Your task to perform on an android device: install app "The Home Depot" Image 0: 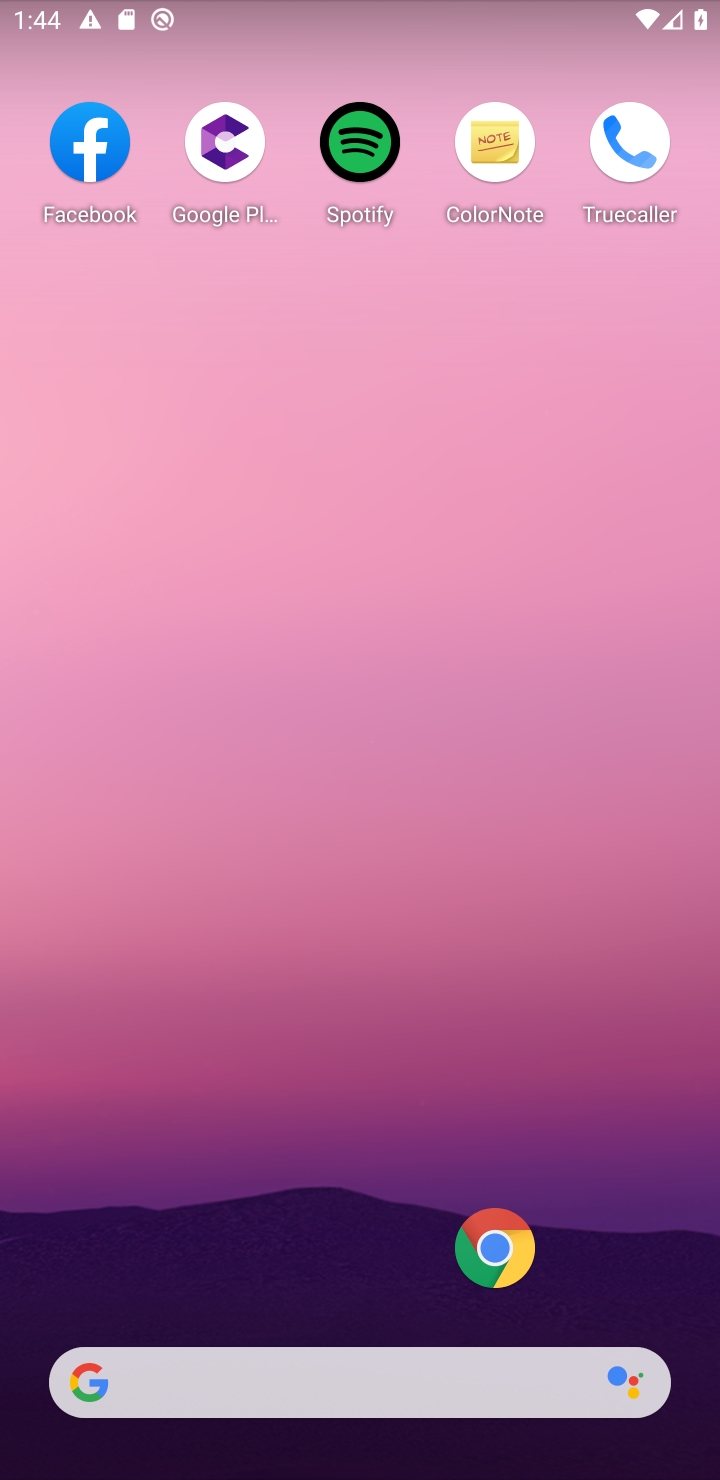
Step 0: drag from (259, 1307) to (320, 766)
Your task to perform on an android device: install app "The Home Depot" Image 1: 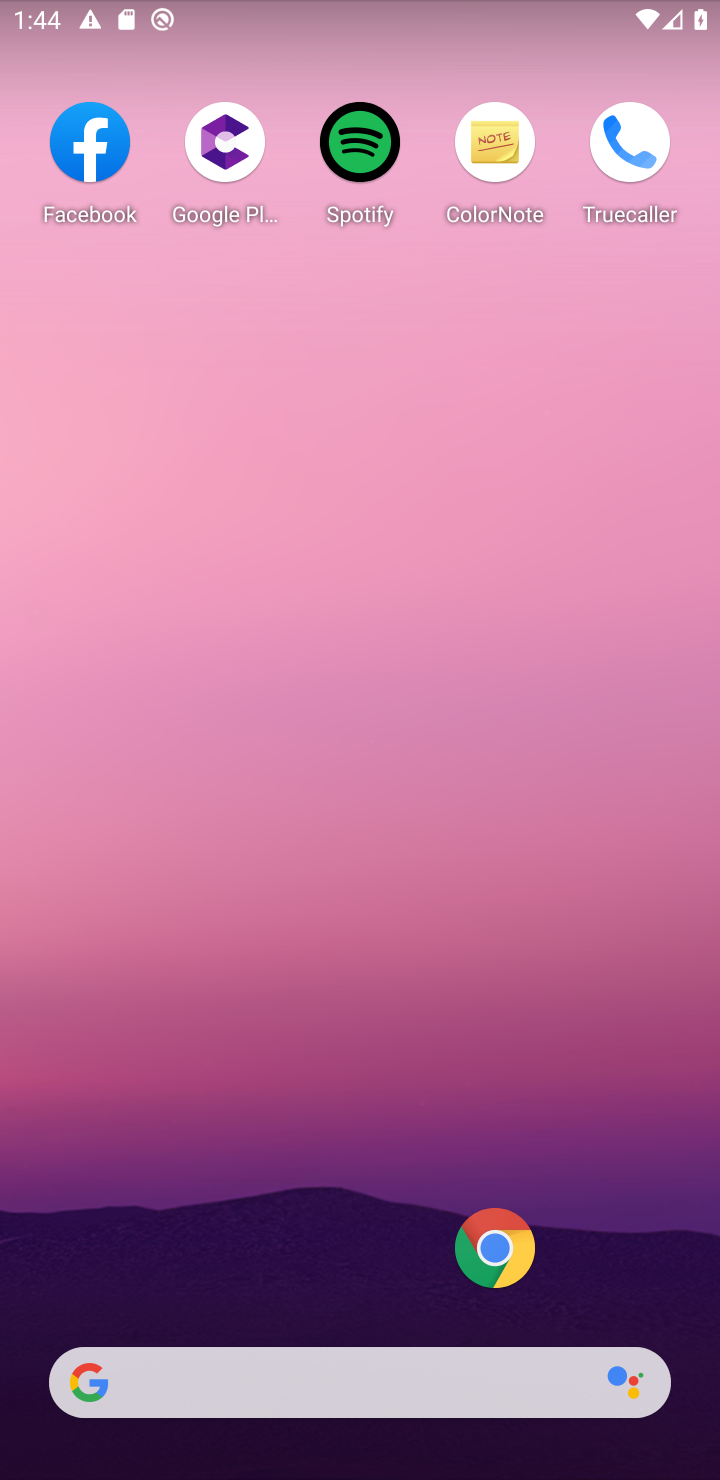
Step 1: drag from (296, 1155) to (337, 417)
Your task to perform on an android device: install app "The Home Depot" Image 2: 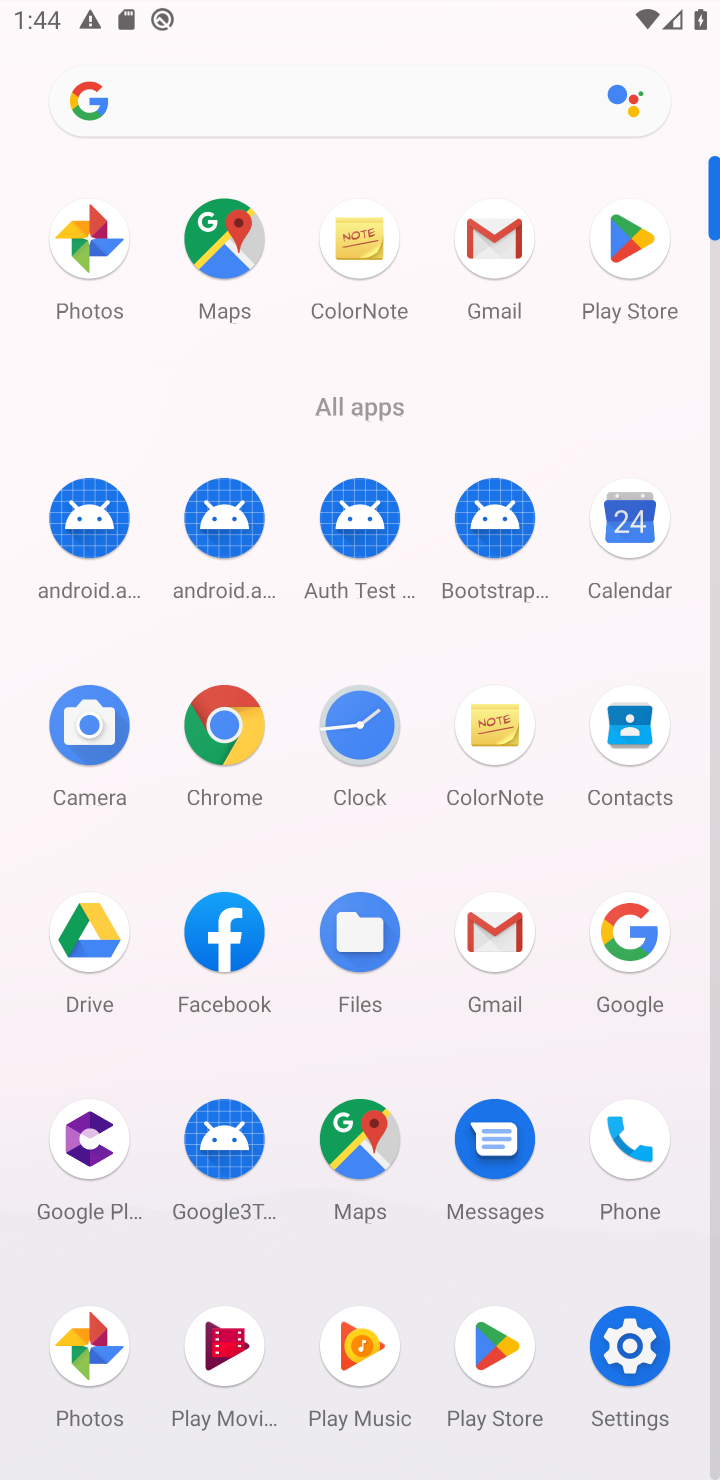
Step 2: click (603, 262)
Your task to perform on an android device: install app "The Home Depot" Image 3: 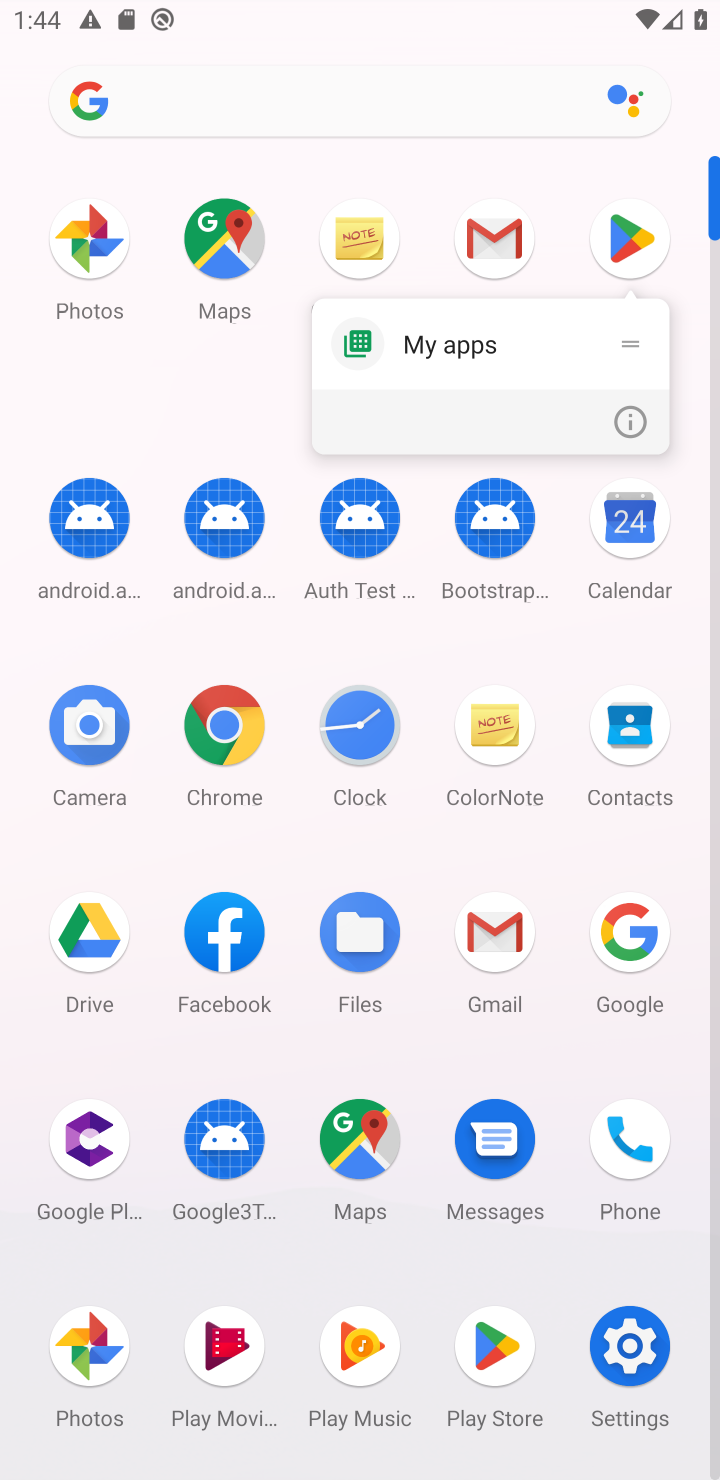
Step 3: click (598, 232)
Your task to perform on an android device: install app "The Home Depot" Image 4: 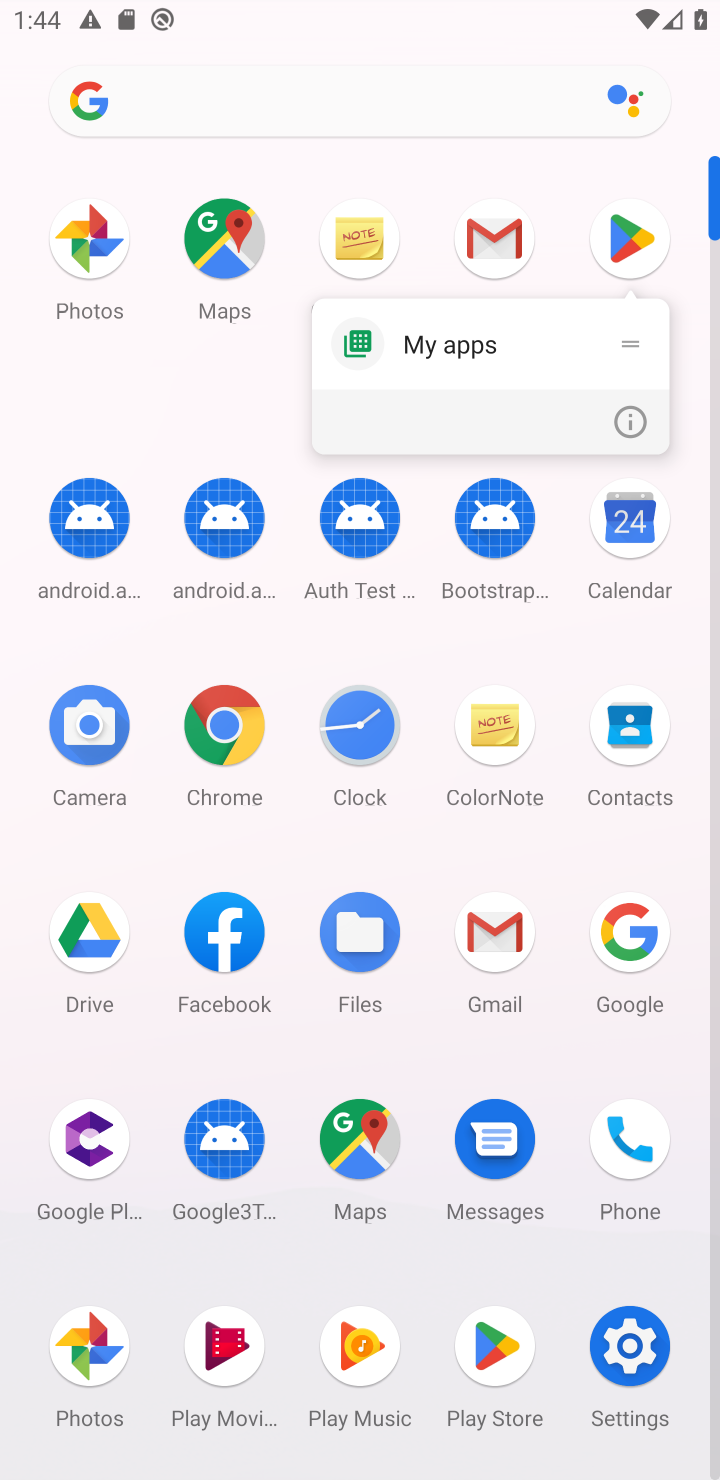
Step 4: click (629, 239)
Your task to perform on an android device: install app "The Home Depot" Image 5: 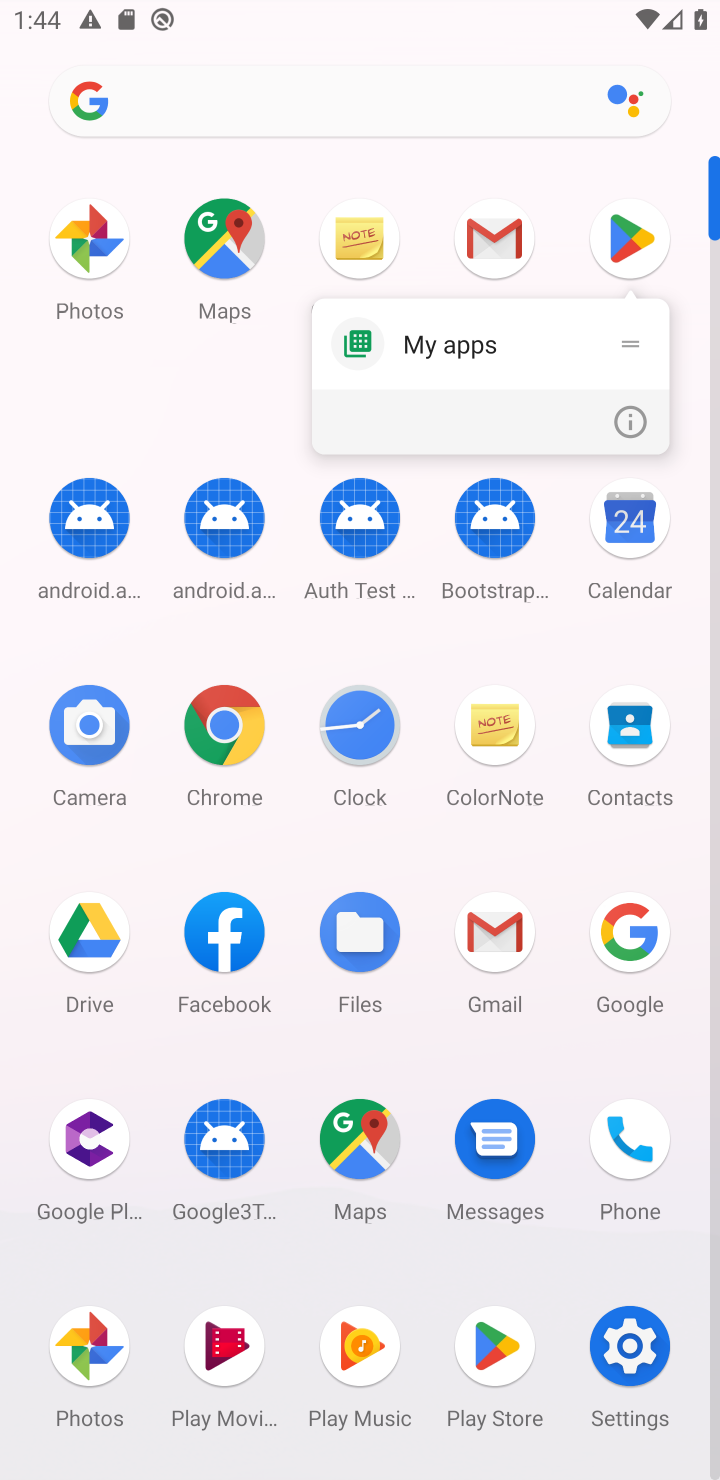
Step 5: click (629, 239)
Your task to perform on an android device: install app "The Home Depot" Image 6: 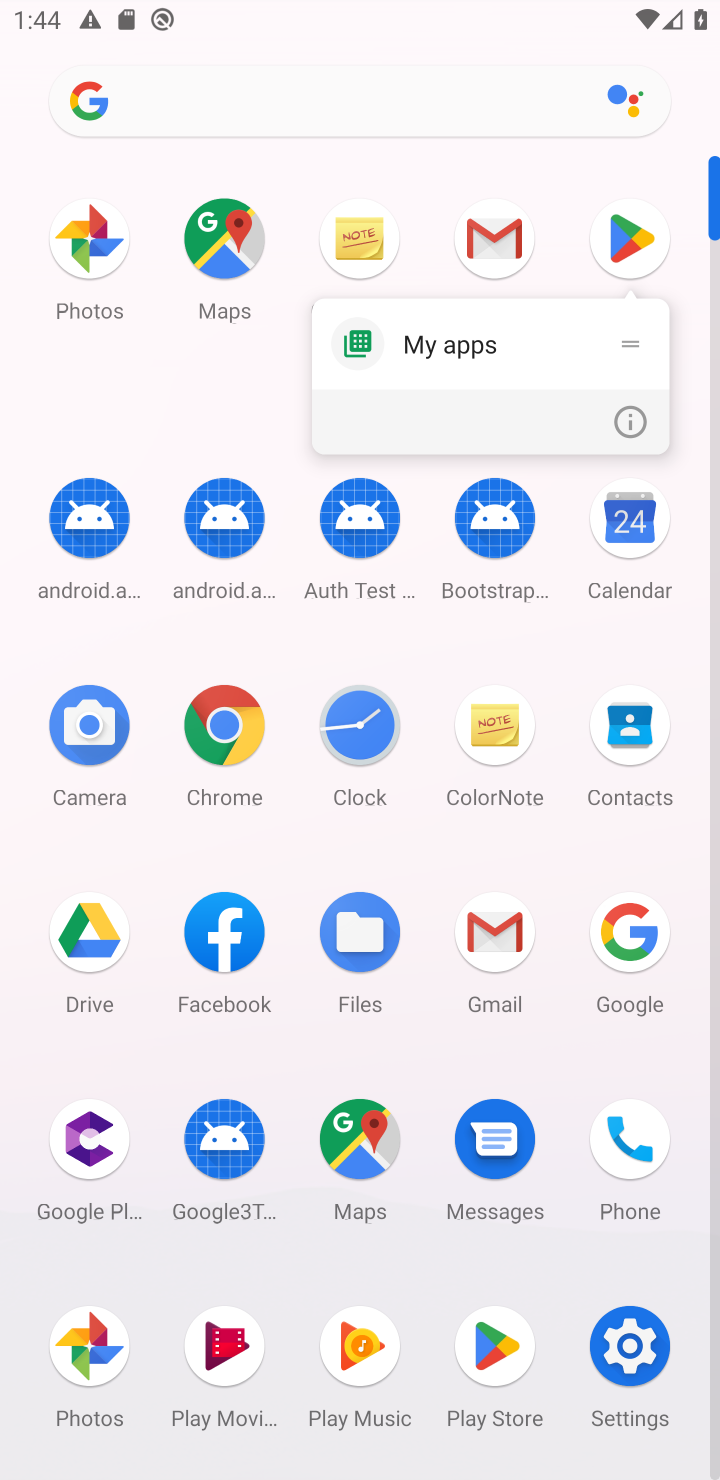
Step 6: click (629, 239)
Your task to perform on an android device: install app "The Home Depot" Image 7: 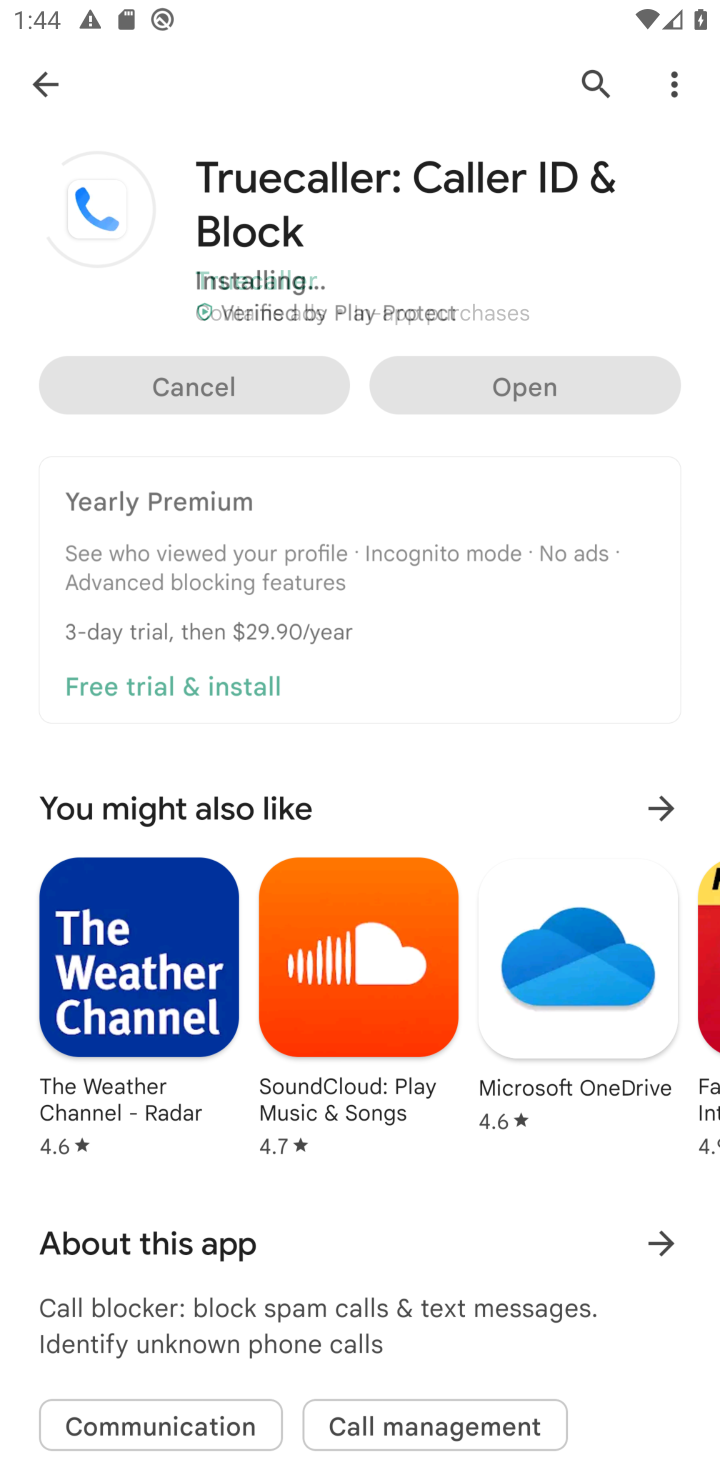
Step 7: click (629, 239)
Your task to perform on an android device: install app "The Home Depot" Image 8: 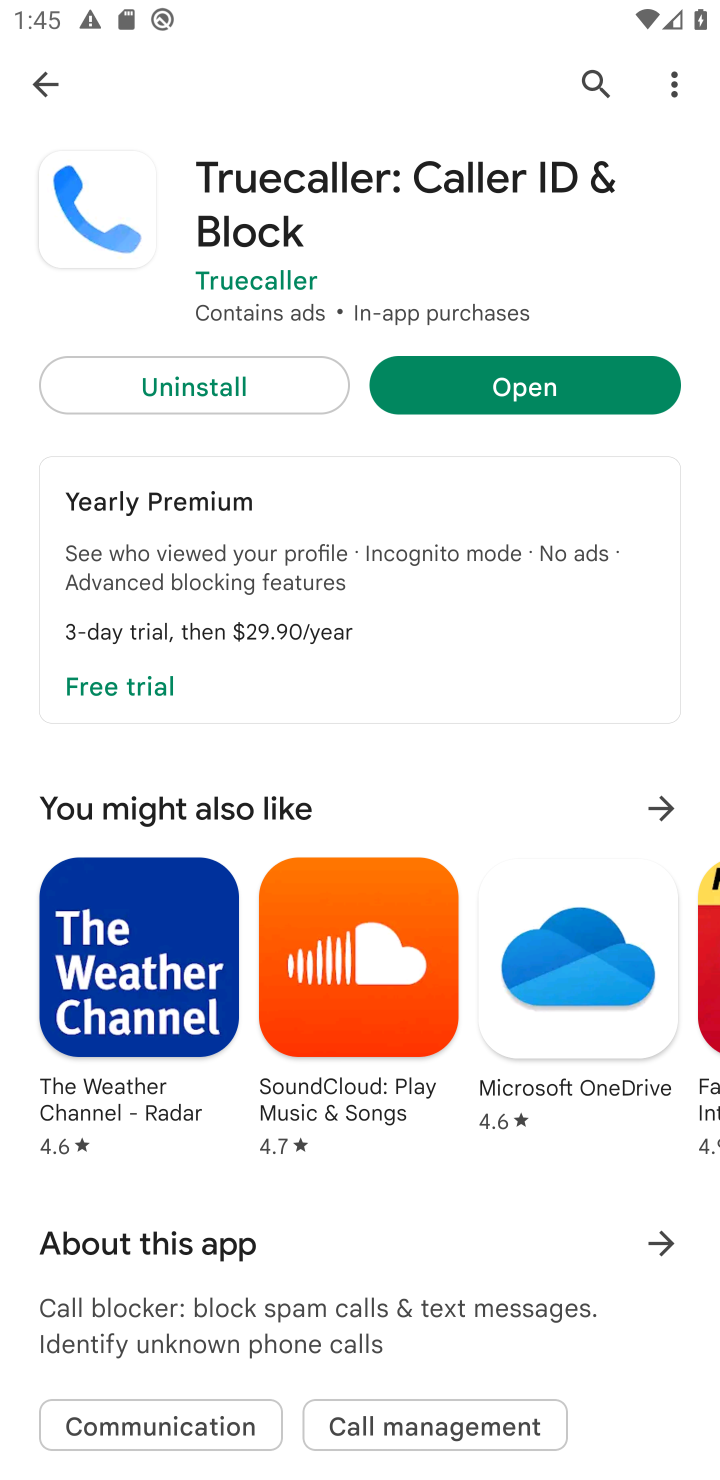
Step 8: click (69, 81)
Your task to perform on an android device: install app "The Home Depot" Image 9: 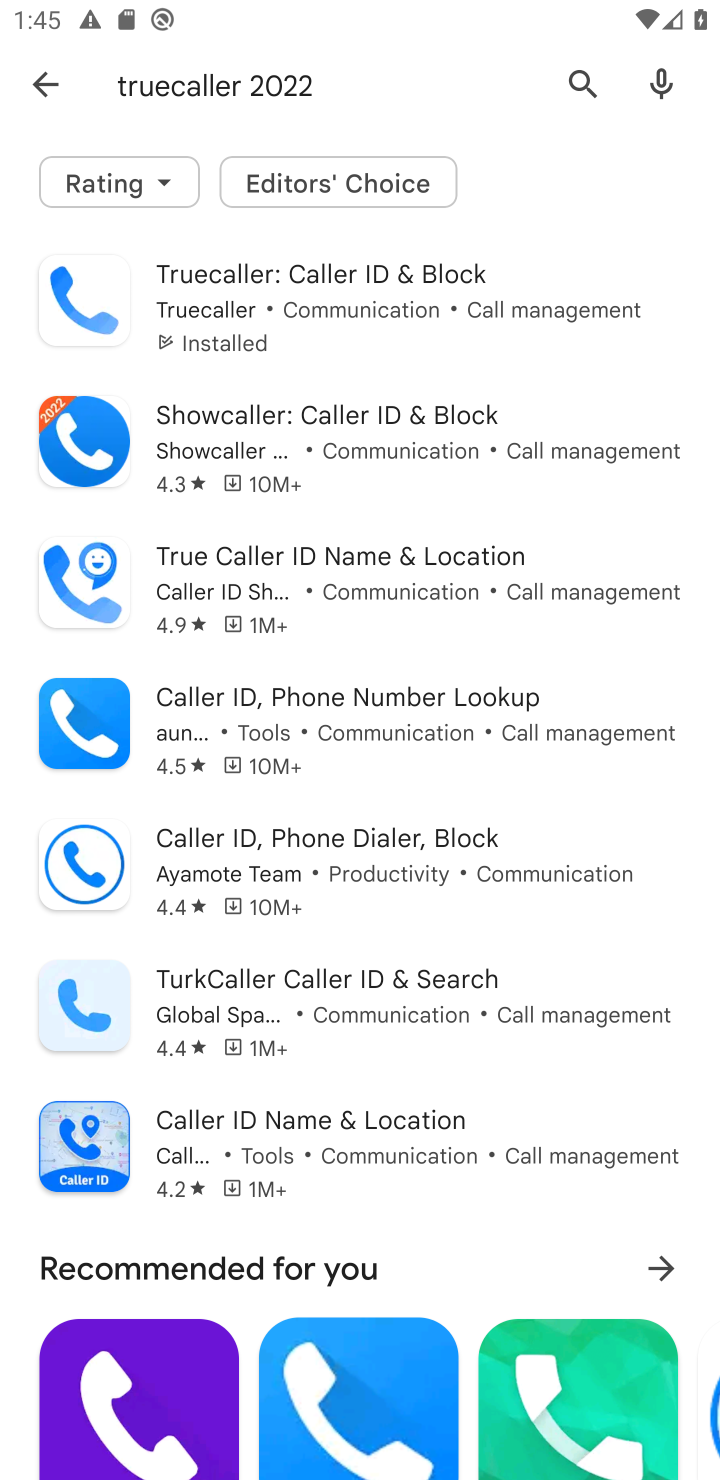
Step 9: click (52, 74)
Your task to perform on an android device: install app "The Home Depot" Image 10: 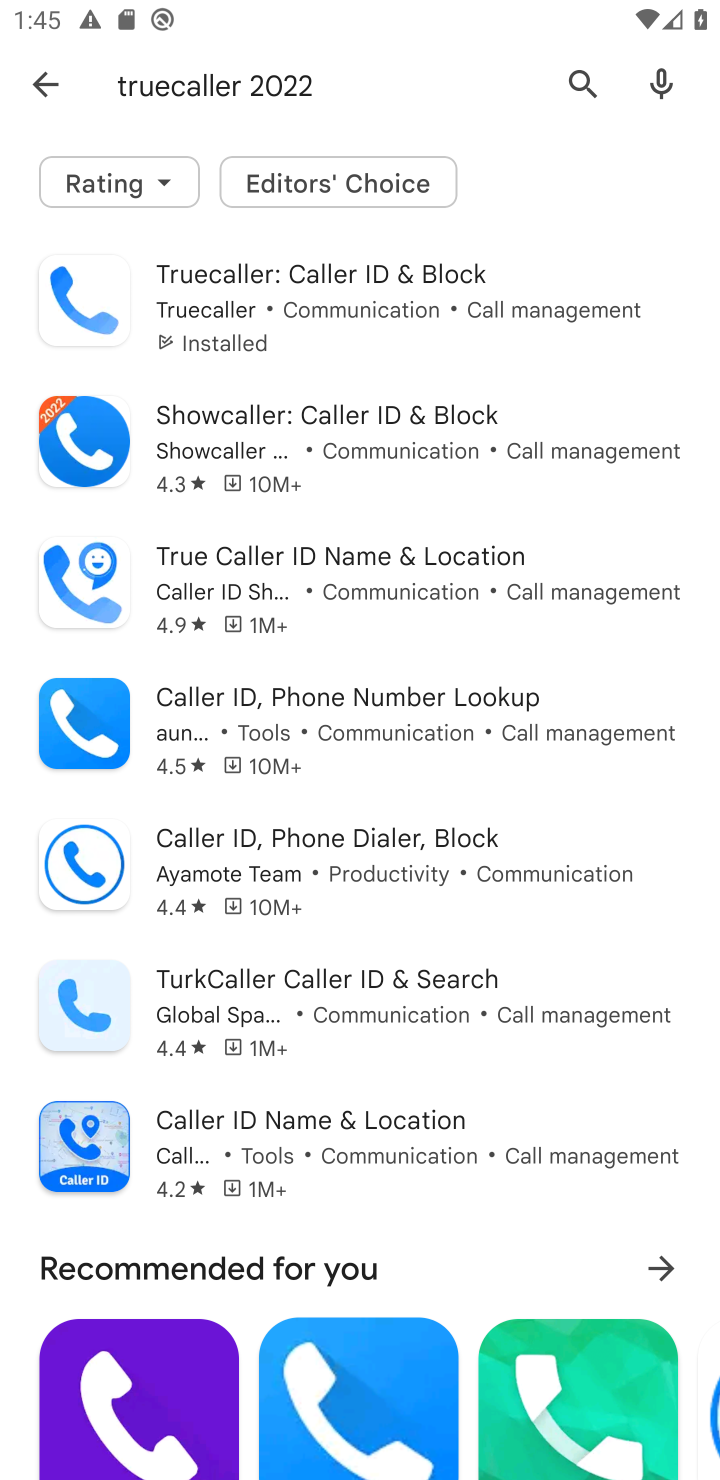
Step 10: click (40, 77)
Your task to perform on an android device: install app "The Home Depot" Image 11: 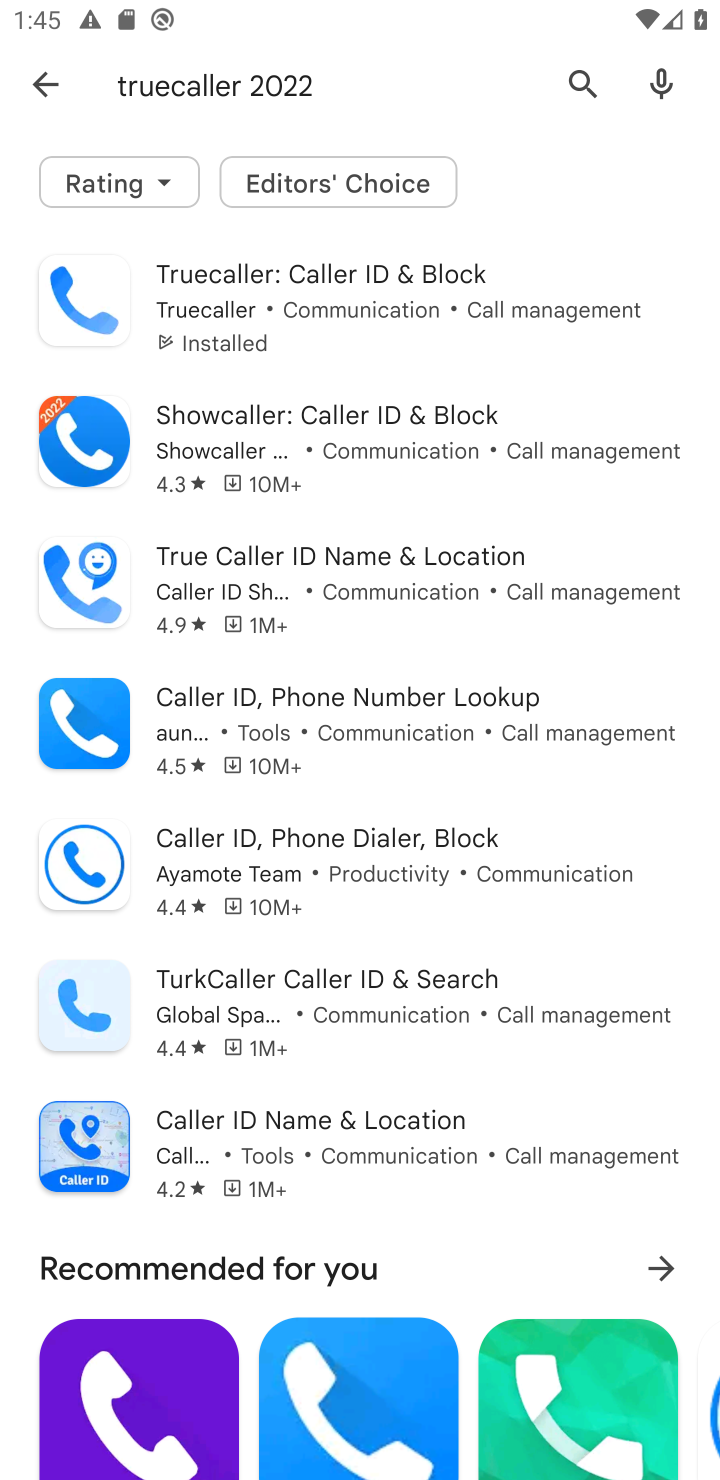
Step 11: click (40, 81)
Your task to perform on an android device: install app "The Home Depot" Image 12: 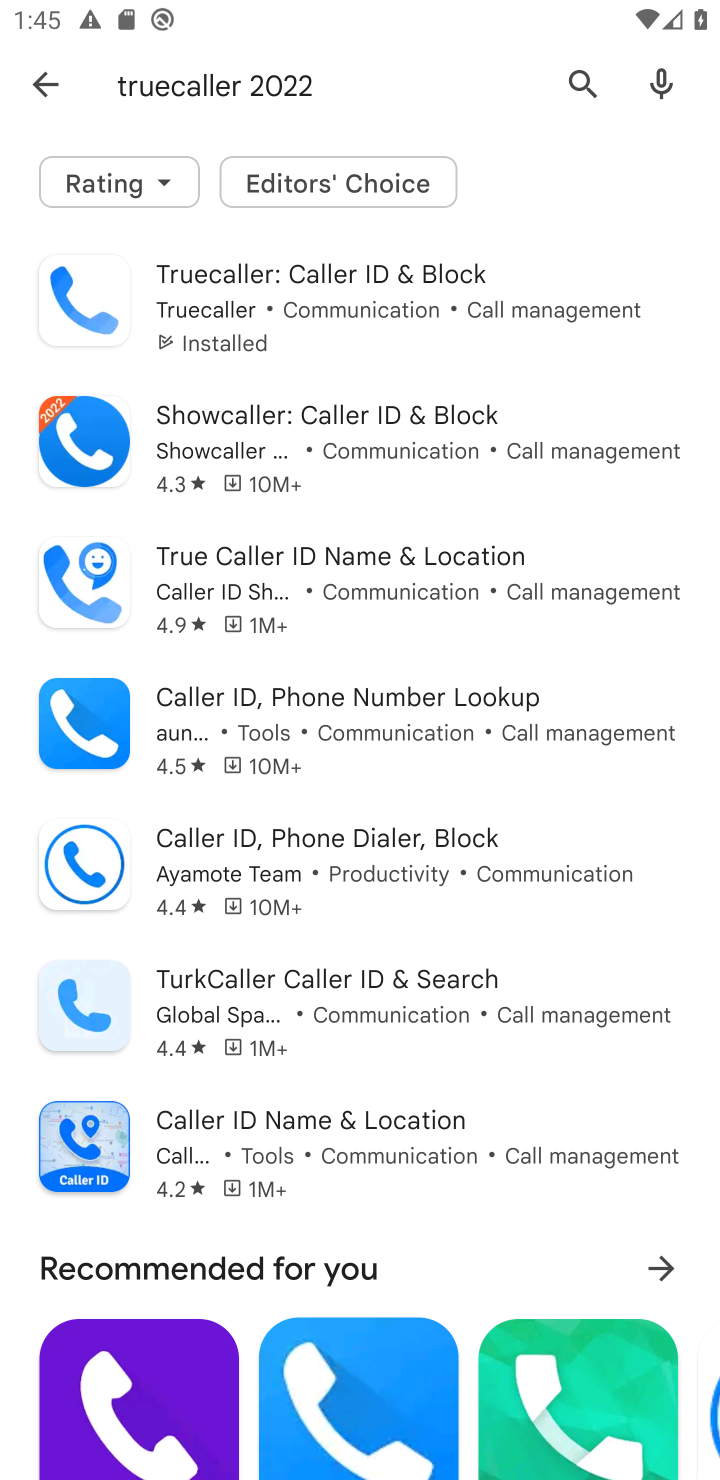
Step 12: click (591, 93)
Your task to perform on an android device: install app "The Home Depot" Image 13: 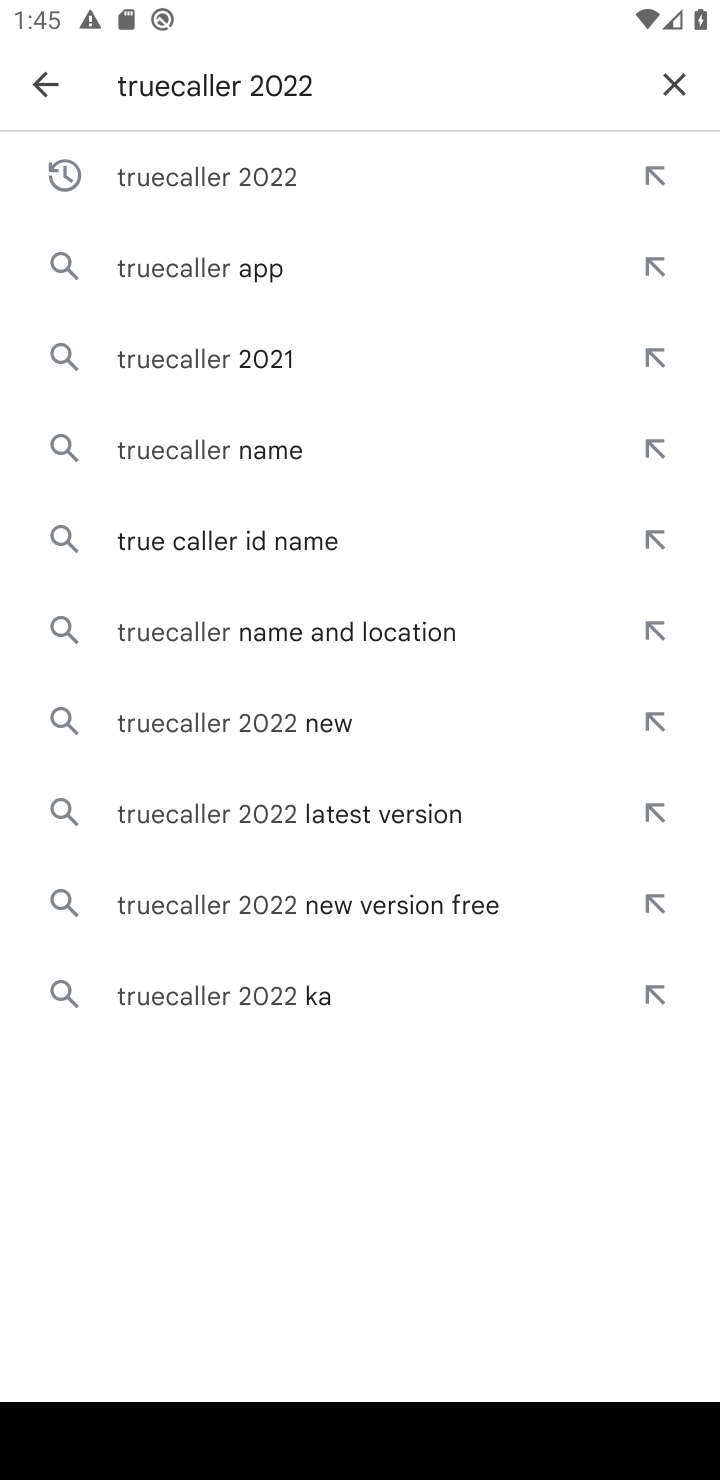
Step 13: click (682, 73)
Your task to perform on an android device: install app "The Home Depot" Image 14: 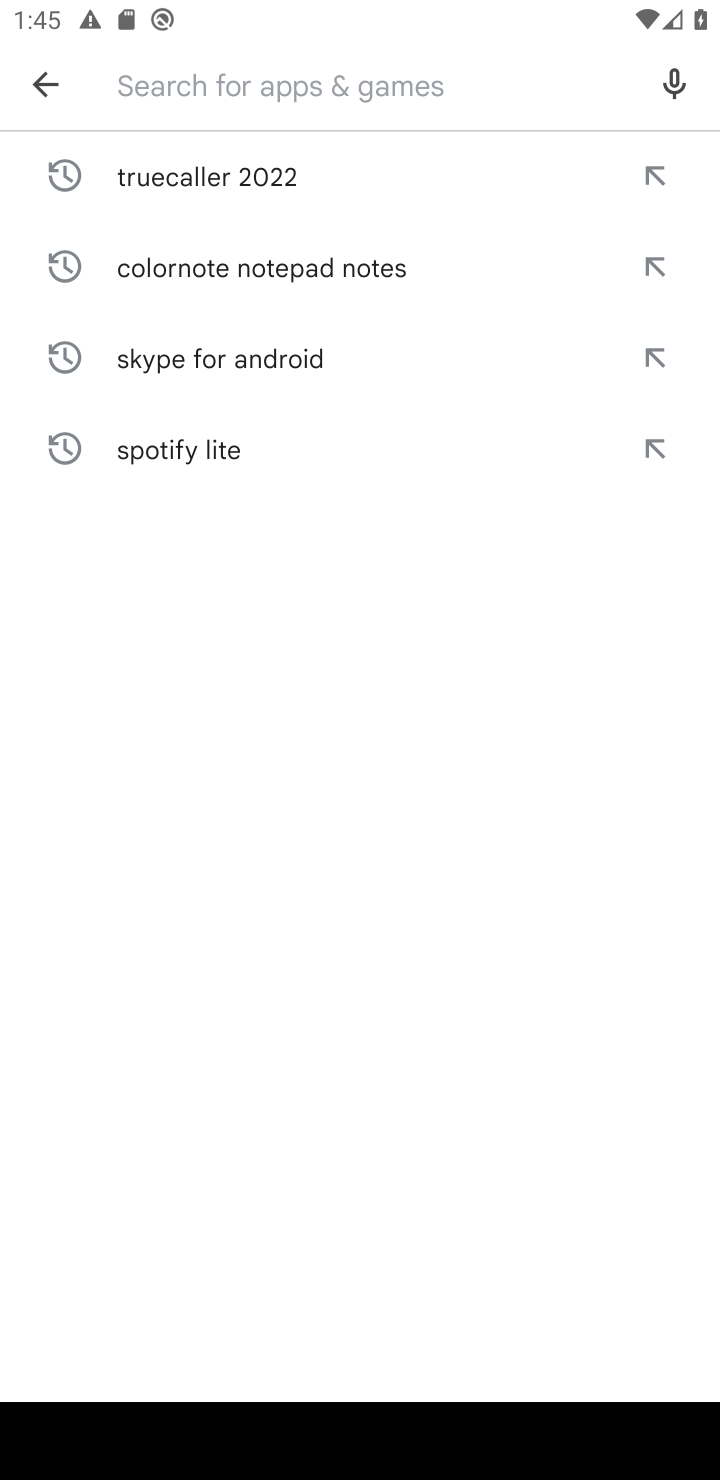
Step 14: click (356, 68)
Your task to perform on an android device: install app "The Home Depot" Image 15: 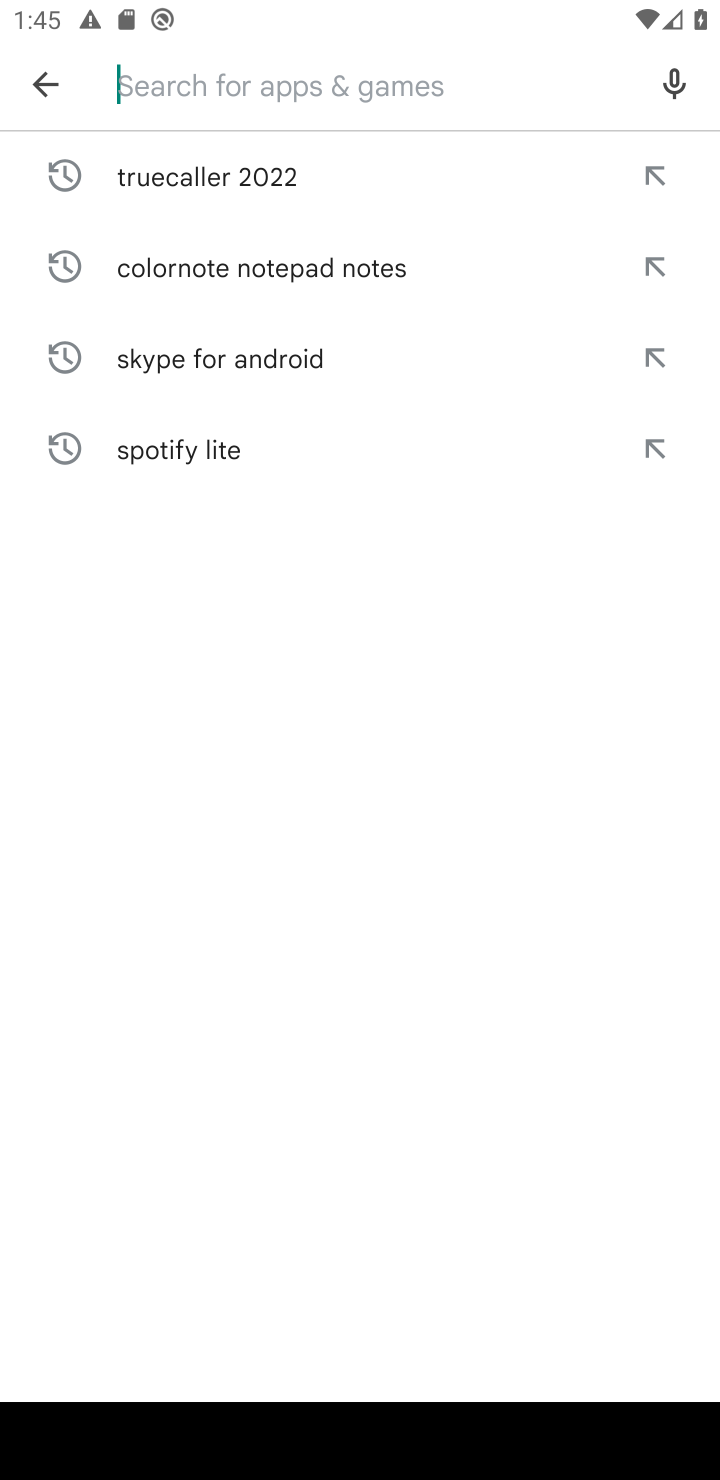
Step 15: type "The Home Depot "
Your task to perform on an android device: install app "The Home Depot" Image 16: 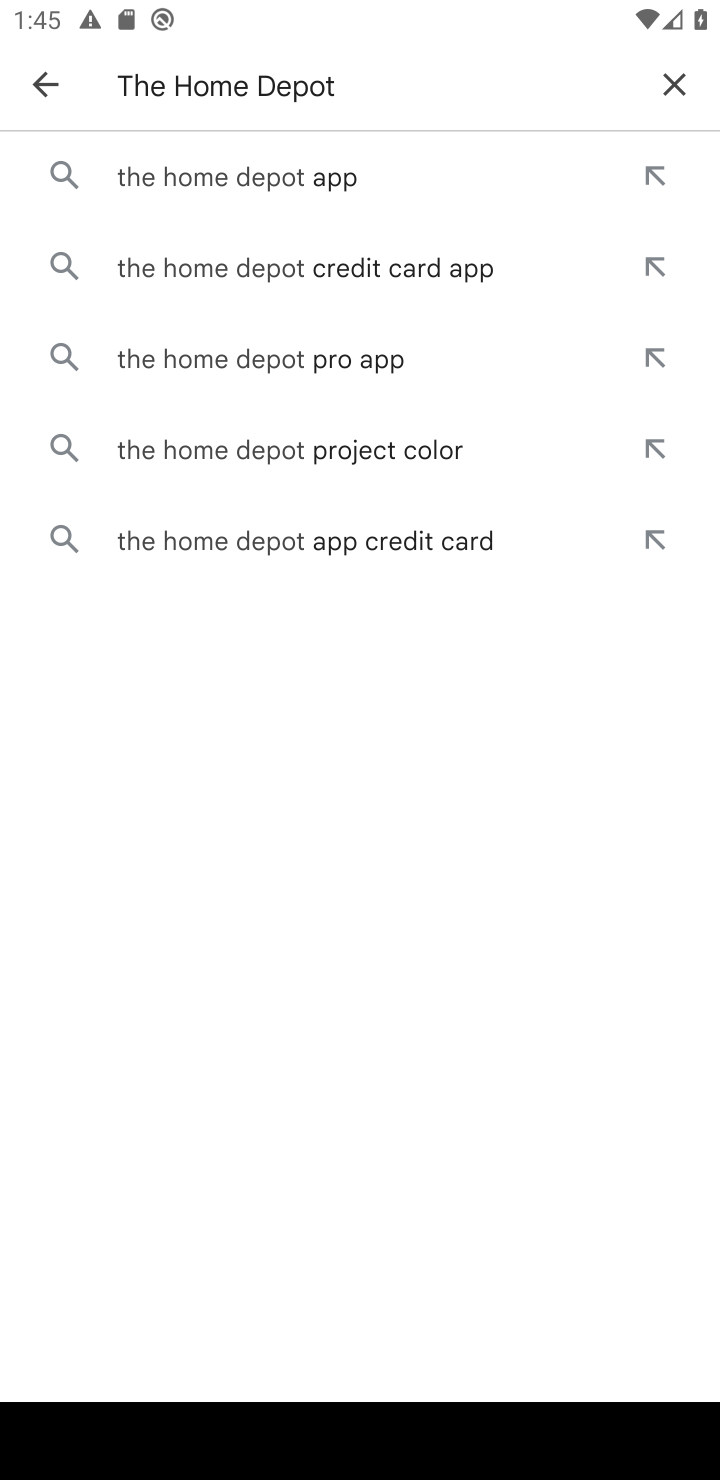
Step 16: click (200, 156)
Your task to perform on an android device: install app "The Home Depot" Image 17: 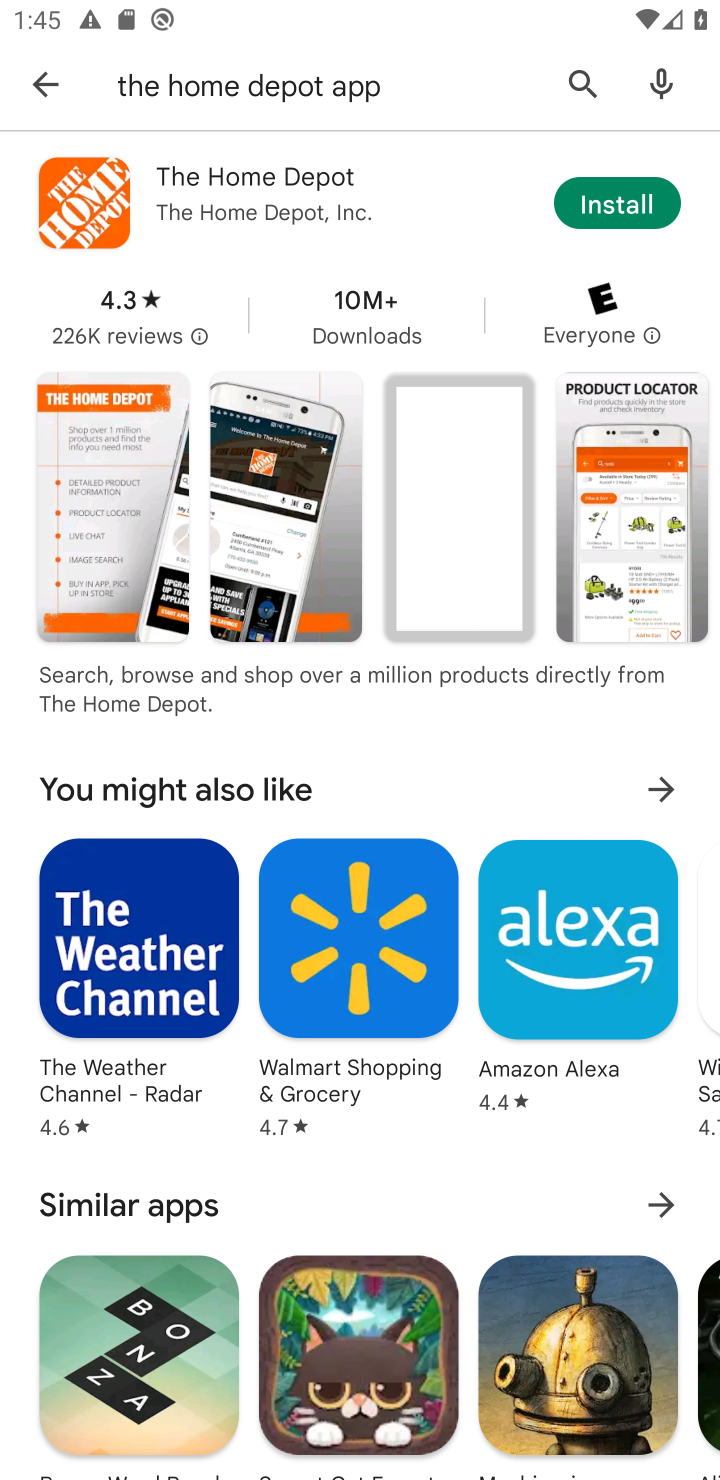
Step 17: click (594, 173)
Your task to perform on an android device: install app "The Home Depot" Image 18: 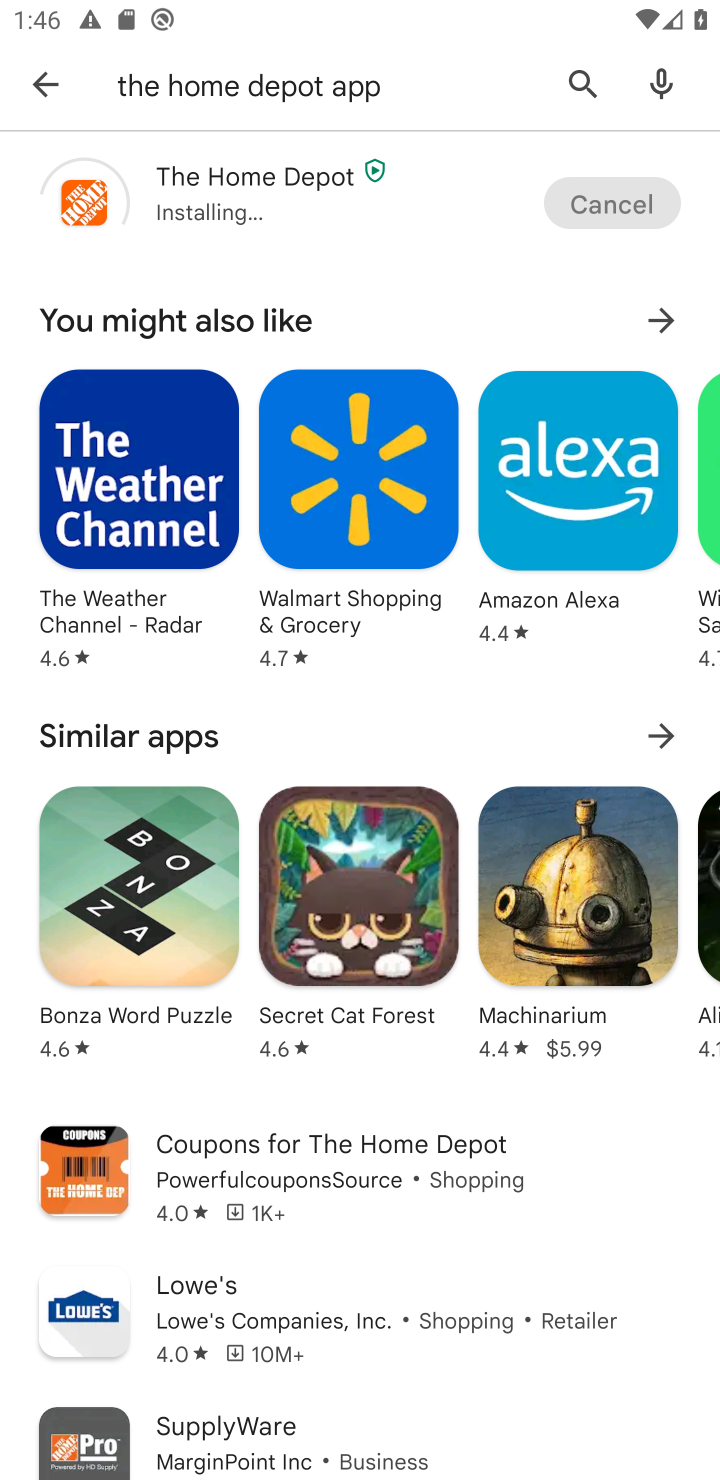
Step 18: click (157, 191)
Your task to perform on an android device: install app "The Home Depot" Image 19: 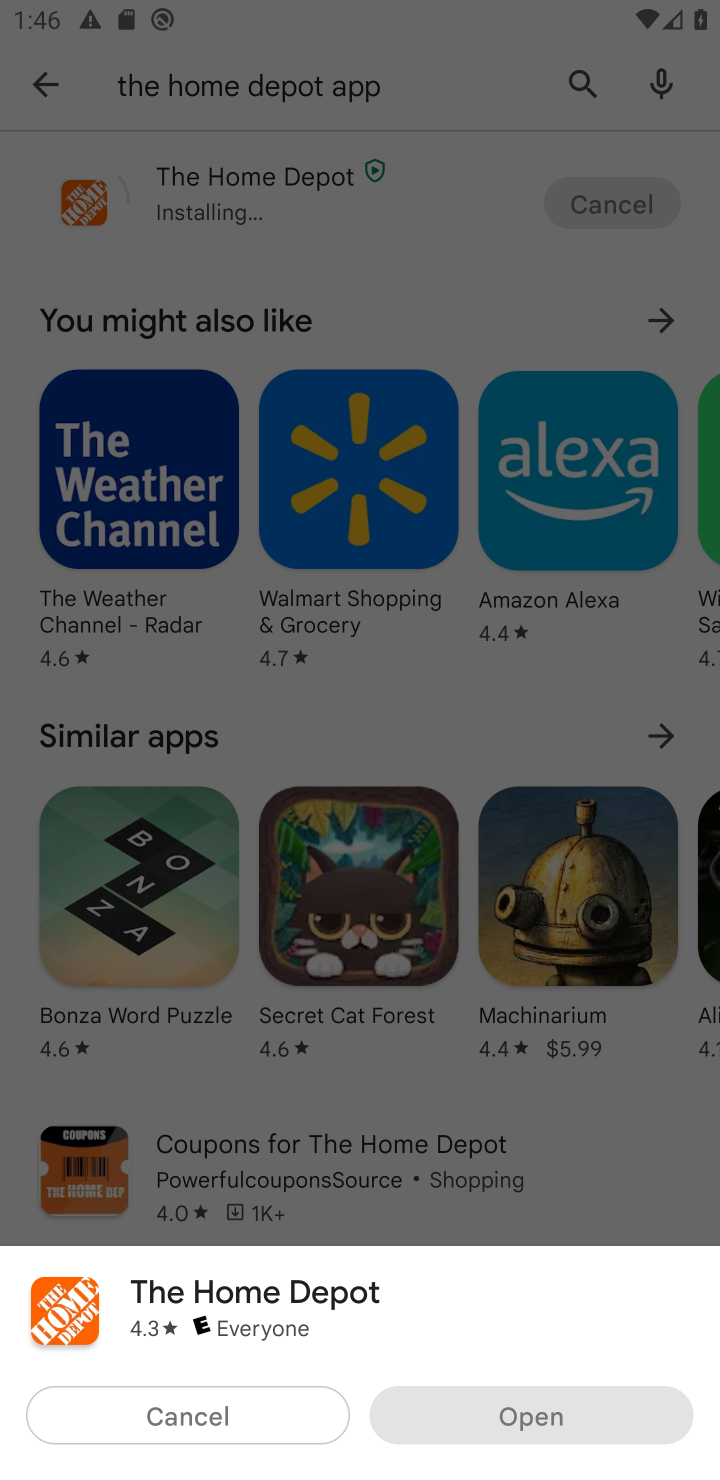
Step 19: task complete